Your task to perform on an android device: star an email in the gmail app Image 0: 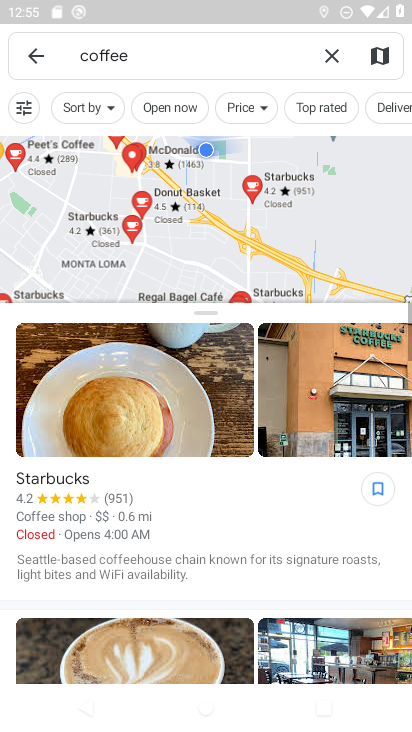
Step 0: press home button
Your task to perform on an android device: star an email in the gmail app Image 1: 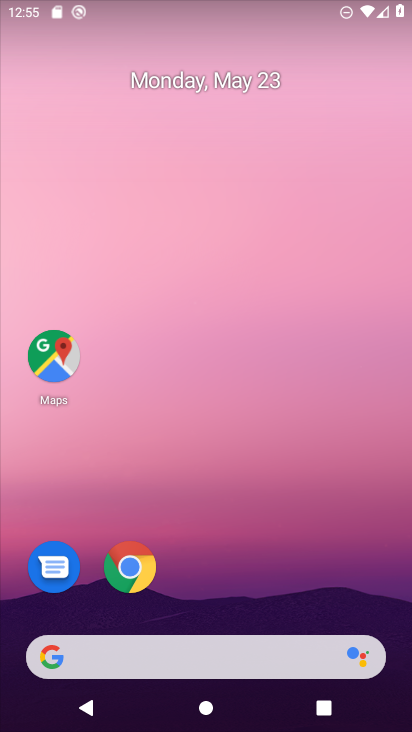
Step 1: drag from (220, 632) to (302, 109)
Your task to perform on an android device: star an email in the gmail app Image 2: 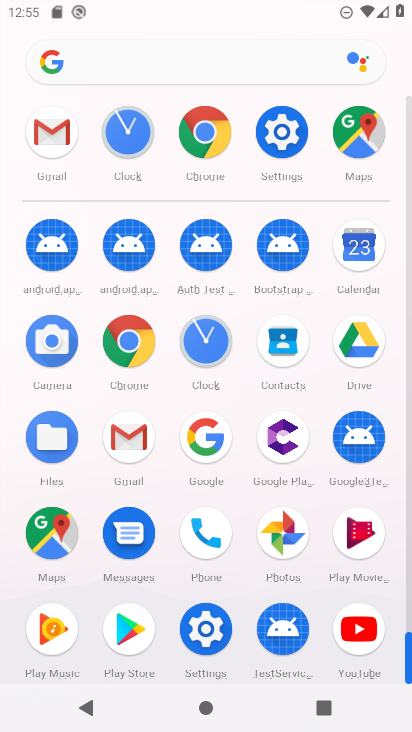
Step 2: click (138, 427)
Your task to perform on an android device: star an email in the gmail app Image 3: 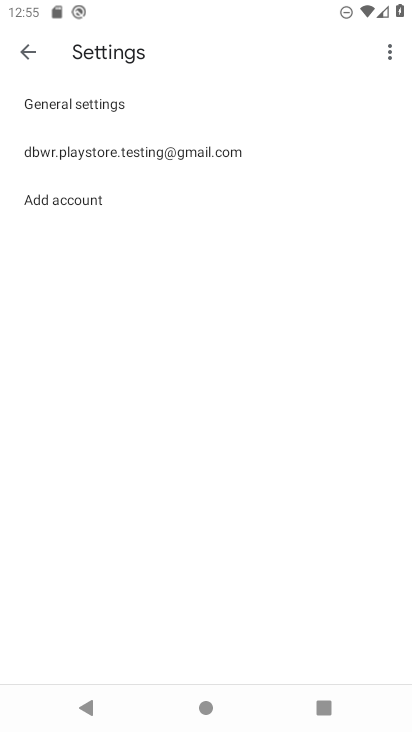
Step 3: click (16, 55)
Your task to perform on an android device: star an email in the gmail app Image 4: 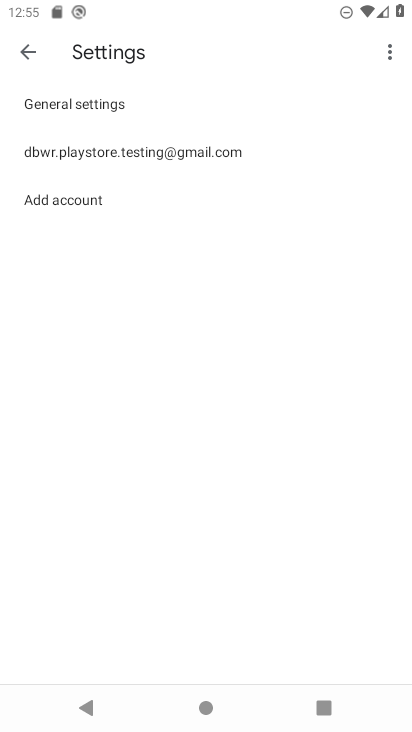
Step 4: click (16, 55)
Your task to perform on an android device: star an email in the gmail app Image 5: 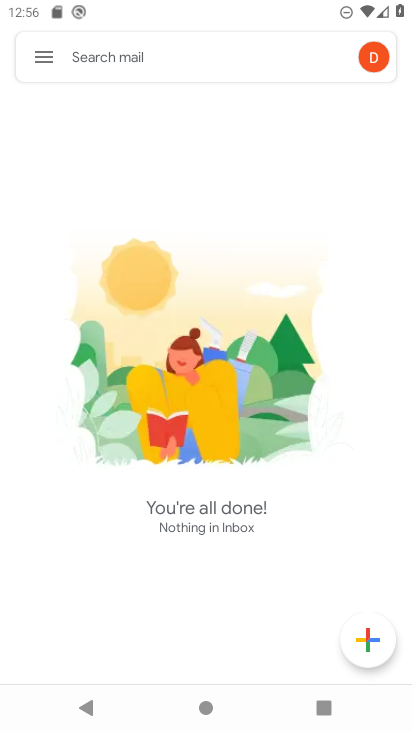
Step 5: task complete